Your task to perform on an android device: Search for vegetarian restaurants on Maps Image 0: 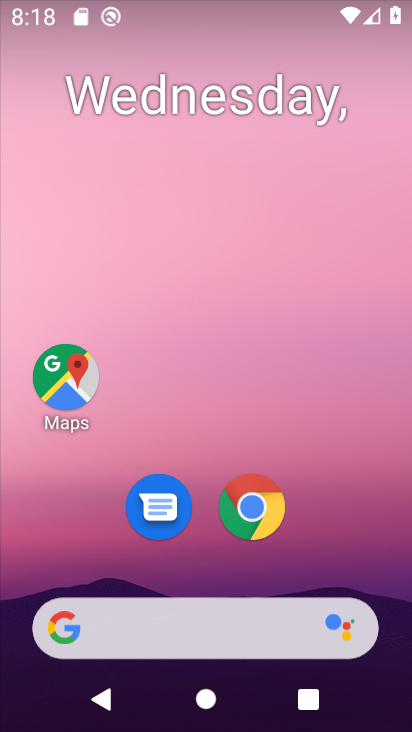
Step 0: click (70, 396)
Your task to perform on an android device: Search for vegetarian restaurants on Maps Image 1: 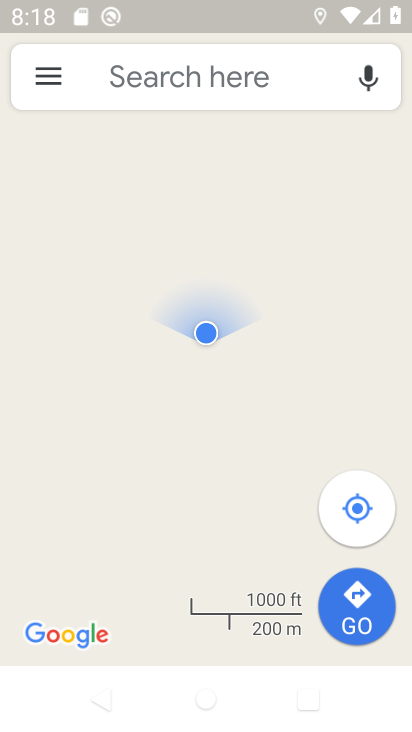
Step 1: click (120, 63)
Your task to perform on an android device: Search for vegetarian restaurants on Maps Image 2: 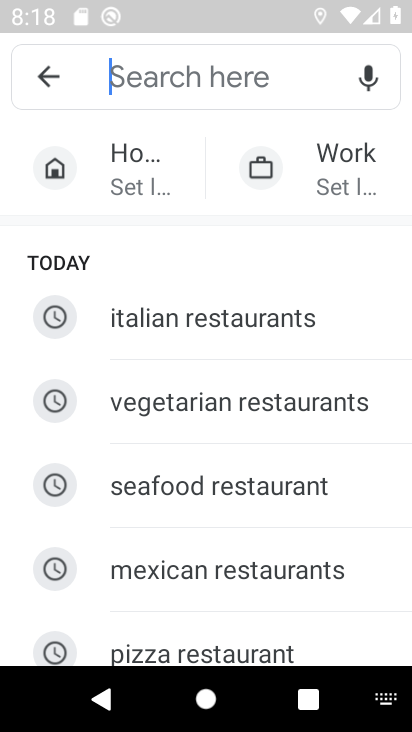
Step 2: type "vegetarian restaurants"
Your task to perform on an android device: Search for vegetarian restaurants on Maps Image 3: 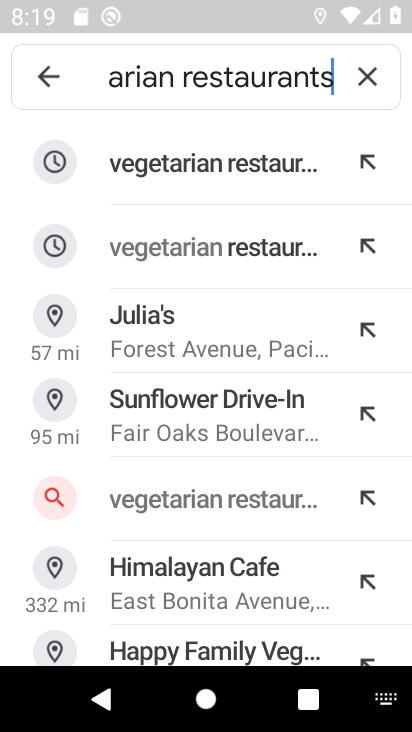
Step 3: click (175, 131)
Your task to perform on an android device: Search for vegetarian restaurants on Maps Image 4: 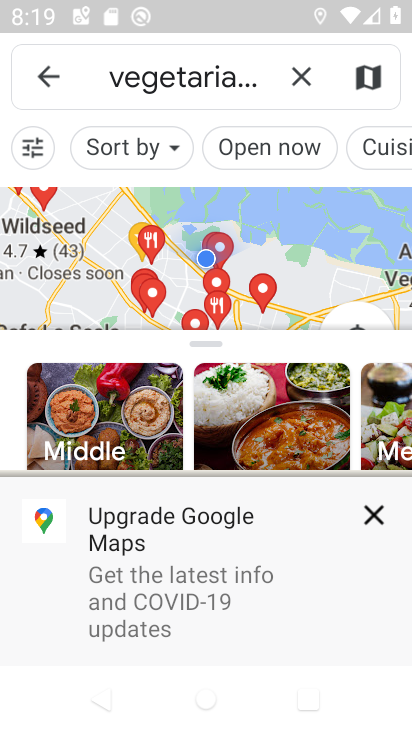
Step 4: task complete